Your task to perform on an android device: When is my next appointment? Image 0: 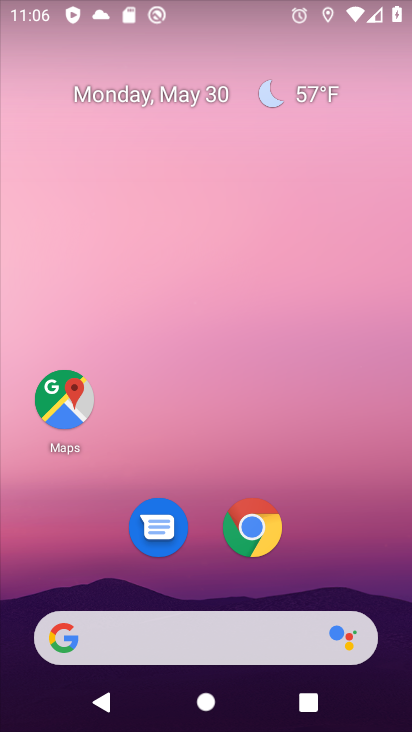
Step 0: drag from (373, 570) to (346, 97)
Your task to perform on an android device: When is my next appointment? Image 1: 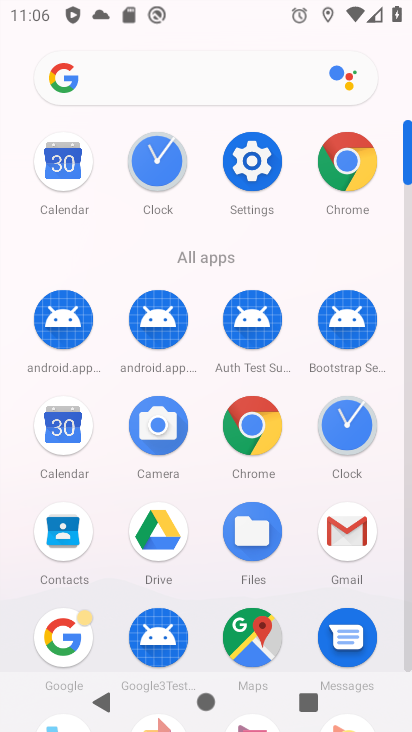
Step 1: drag from (296, 612) to (303, 388)
Your task to perform on an android device: When is my next appointment? Image 2: 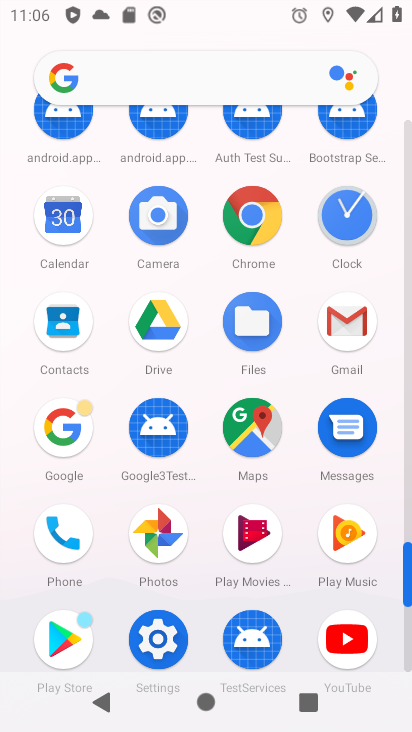
Step 2: click (60, 222)
Your task to perform on an android device: When is my next appointment? Image 3: 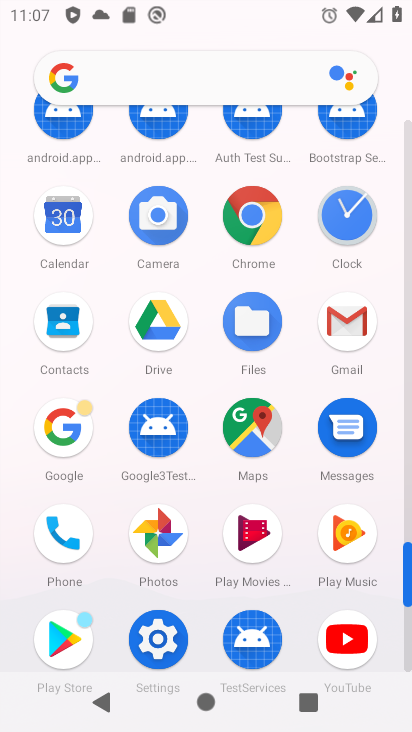
Step 3: drag from (194, 263) to (214, 487)
Your task to perform on an android device: When is my next appointment? Image 4: 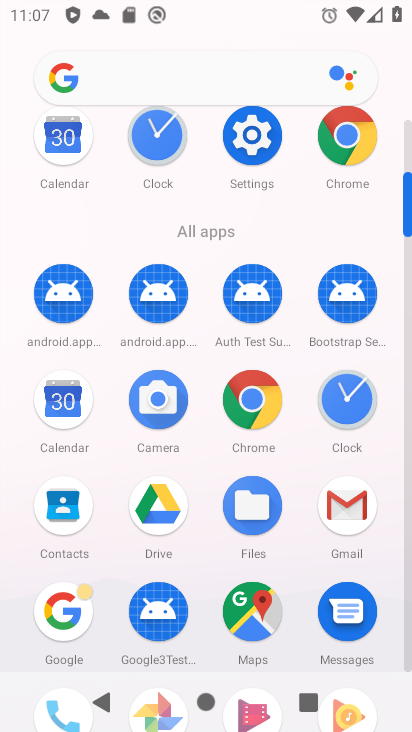
Step 4: click (67, 397)
Your task to perform on an android device: When is my next appointment? Image 5: 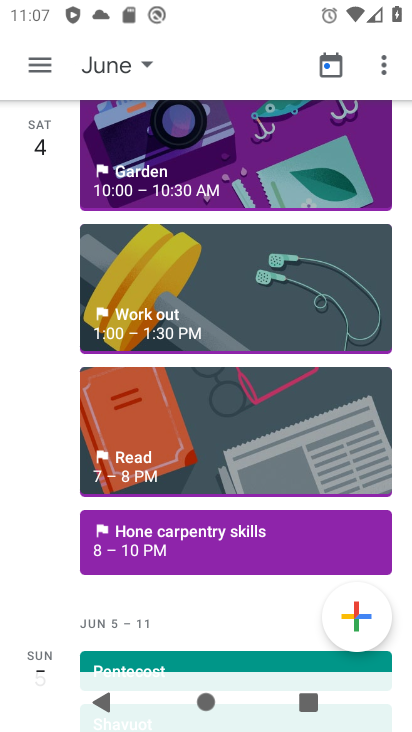
Step 5: task complete